Your task to perform on an android device: check battery use Image 0: 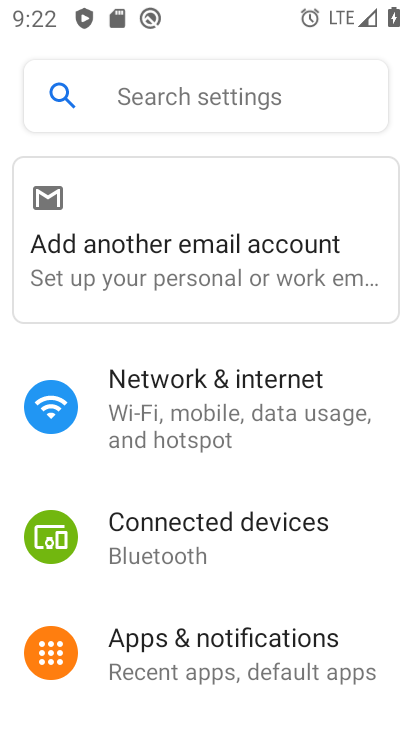
Step 0: drag from (184, 582) to (358, 42)
Your task to perform on an android device: check battery use Image 1: 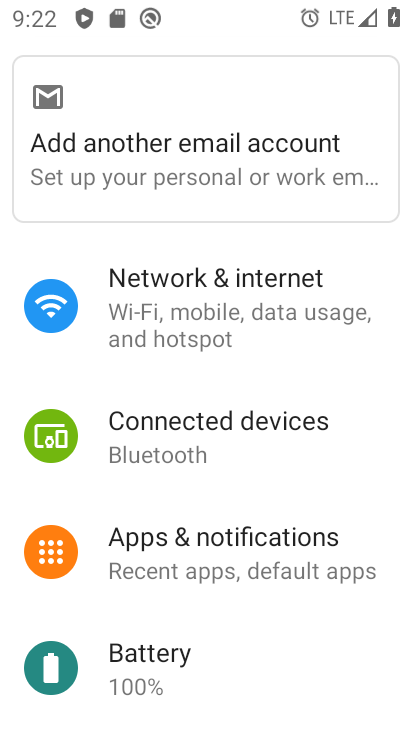
Step 1: click (181, 649)
Your task to perform on an android device: check battery use Image 2: 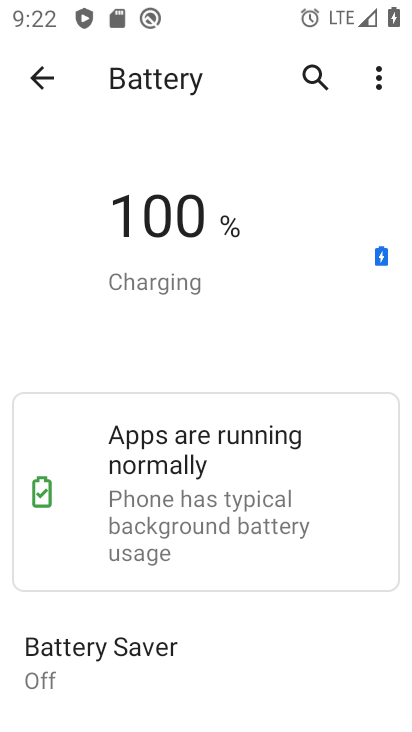
Step 2: click (379, 76)
Your task to perform on an android device: check battery use Image 3: 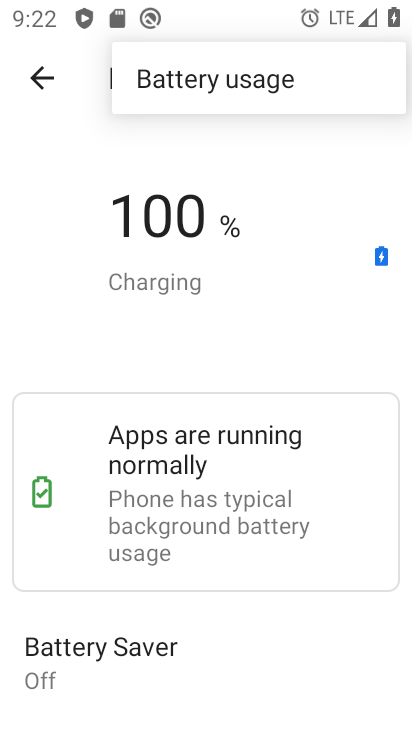
Step 3: click (221, 82)
Your task to perform on an android device: check battery use Image 4: 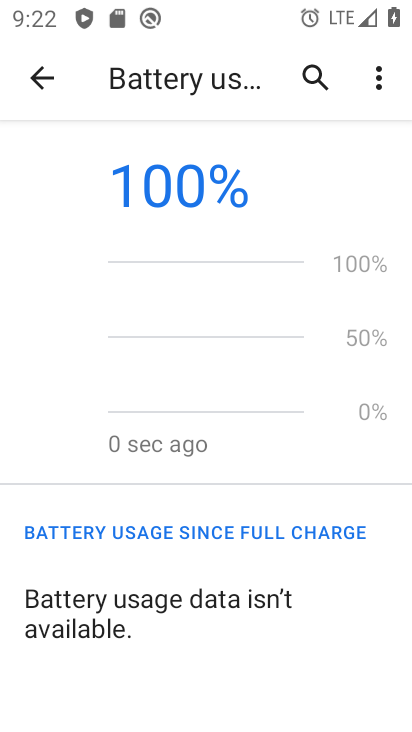
Step 4: task complete